Your task to perform on an android device: Search for seafood restaurants on Google Maps Image 0: 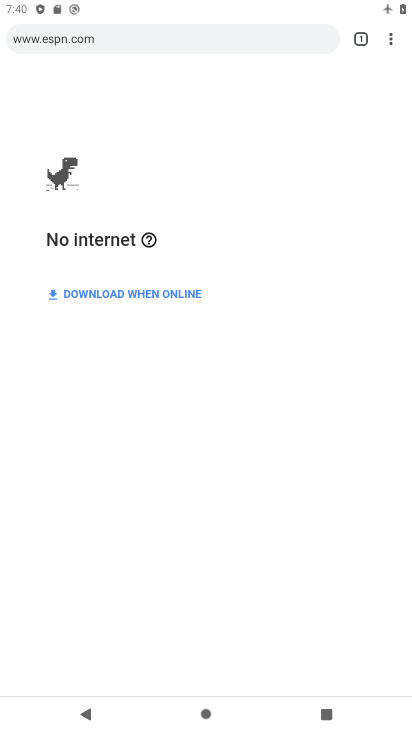
Step 0: press home button
Your task to perform on an android device: Search for seafood restaurants on Google Maps Image 1: 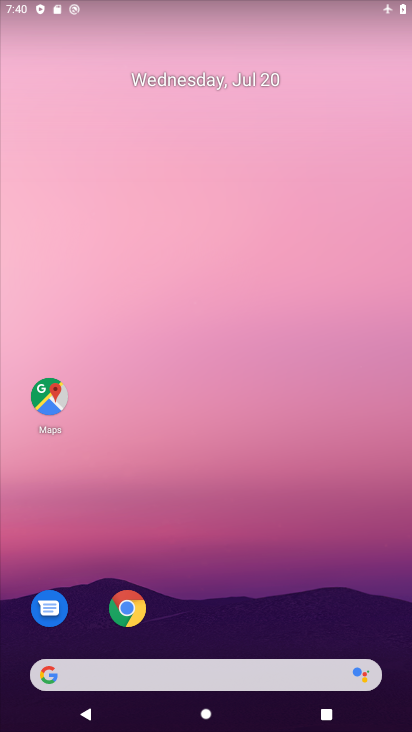
Step 1: drag from (346, 583) to (252, 163)
Your task to perform on an android device: Search for seafood restaurants on Google Maps Image 2: 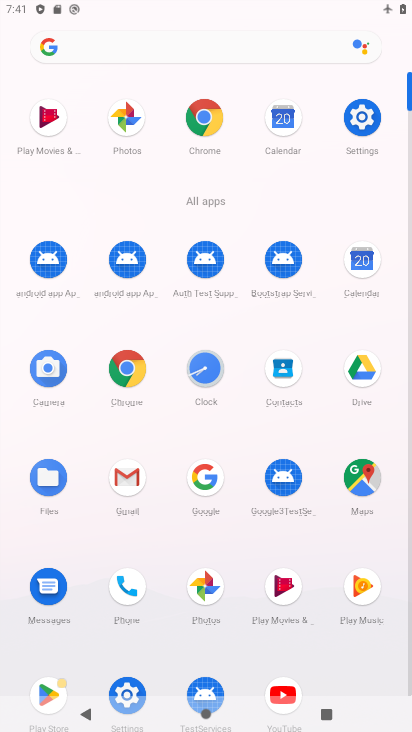
Step 2: click (367, 480)
Your task to perform on an android device: Search for seafood restaurants on Google Maps Image 3: 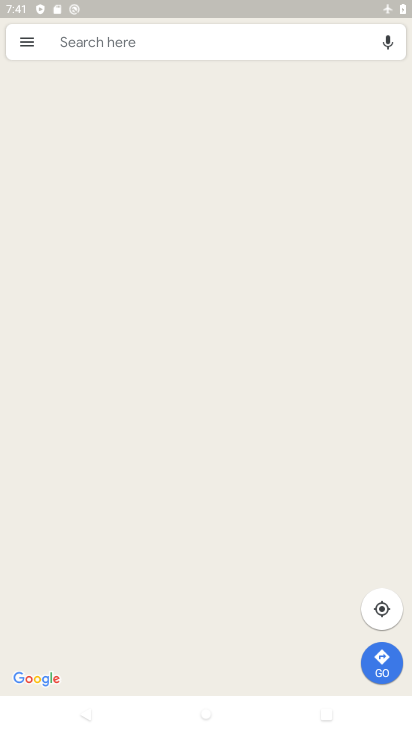
Step 3: click (298, 24)
Your task to perform on an android device: Search for seafood restaurants on Google Maps Image 4: 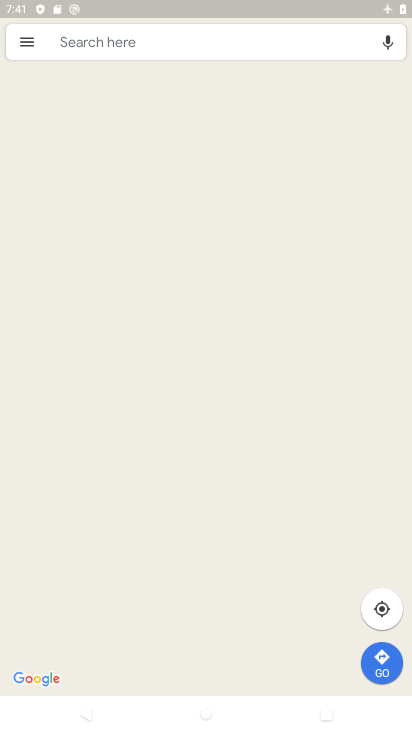
Step 4: click (297, 42)
Your task to perform on an android device: Search for seafood restaurants on Google Maps Image 5: 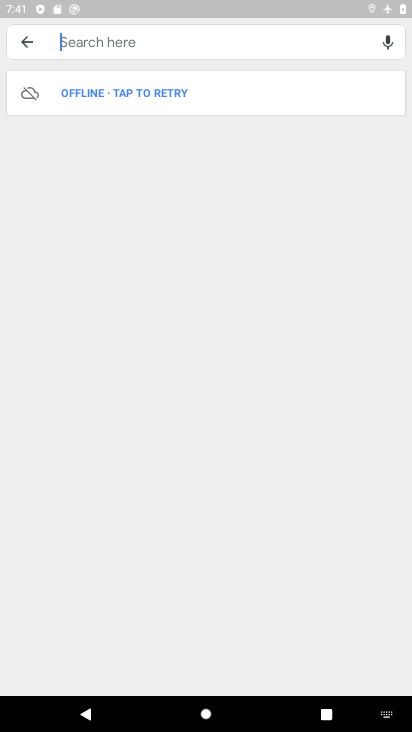
Step 5: type "seafood restaurants"
Your task to perform on an android device: Search for seafood restaurants on Google Maps Image 6: 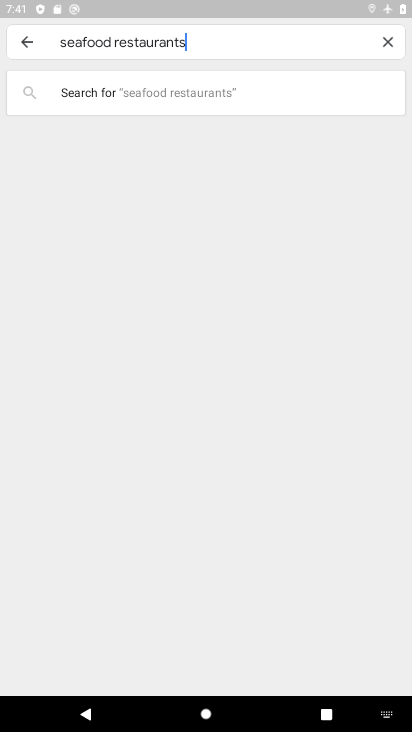
Step 6: press enter
Your task to perform on an android device: Search for seafood restaurants on Google Maps Image 7: 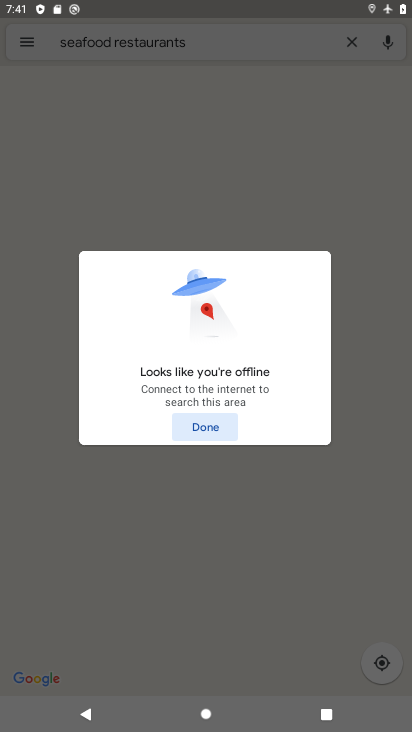
Step 7: task complete